Your task to perform on an android device: star an email in the gmail app Image 0: 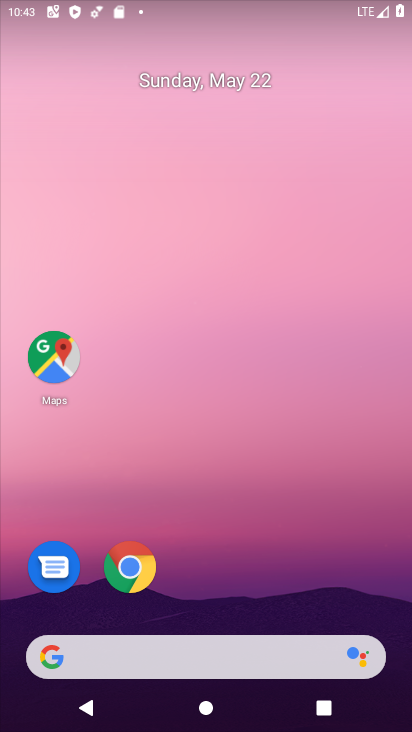
Step 0: drag from (385, 624) to (362, 126)
Your task to perform on an android device: star an email in the gmail app Image 1: 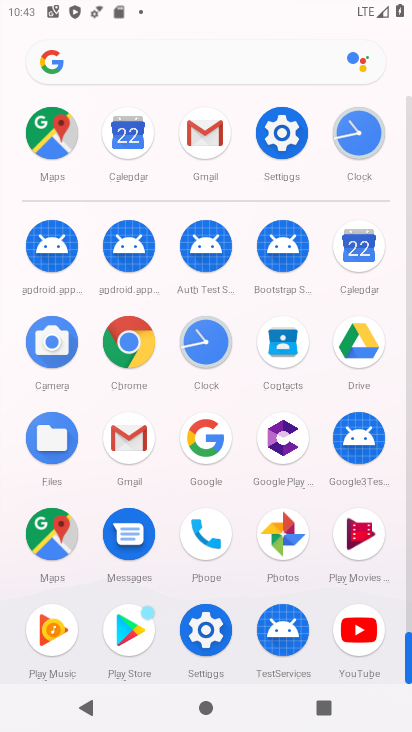
Step 1: click (123, 432)
Your task to perform on an android device: star an email in the gmail app Image 2: 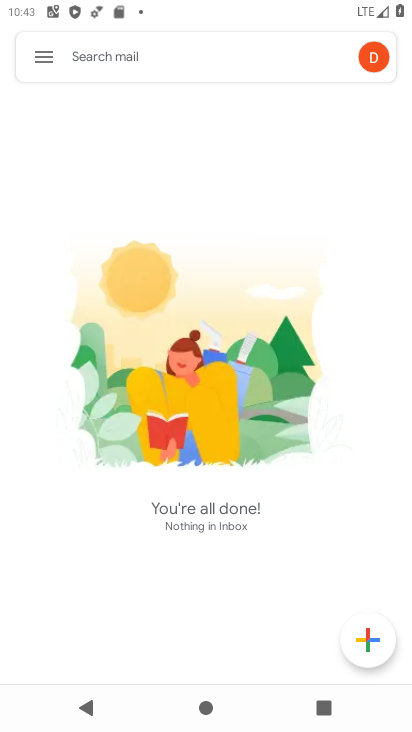
Step 2: click (43, 51)
Your task to perform on an android device: star an email in the gmail app Image 3: 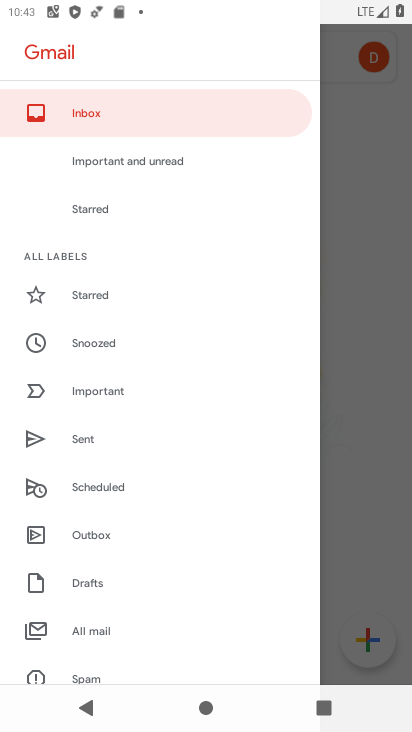
Step 3: drag from (90, 653) to (115, 363)
Your task to perform on an android device: star an email in the gmail app Image 4: 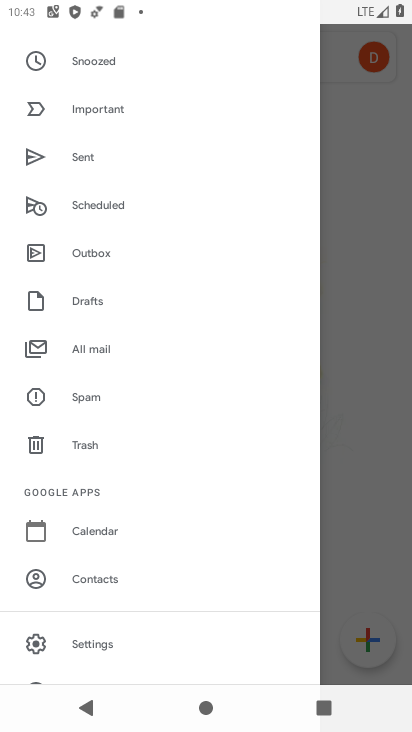
Step 4: click (80, 347)
Your task to perform on an android device: star an email in the gmail app Image 5: 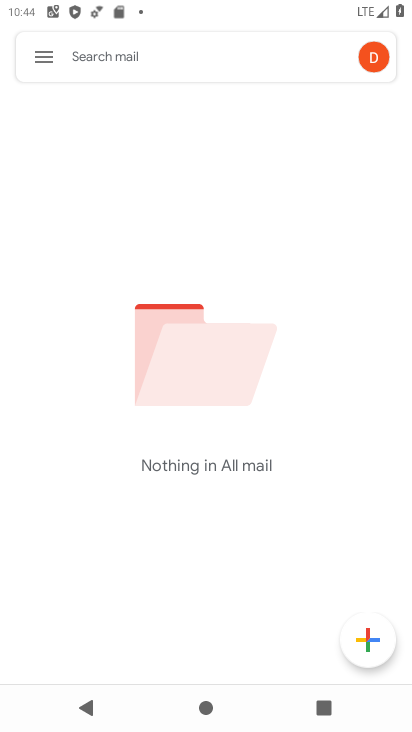
Step 5: task complete